Your task to perform on an android device: Set the phone to "Do not disturb". Image 0: 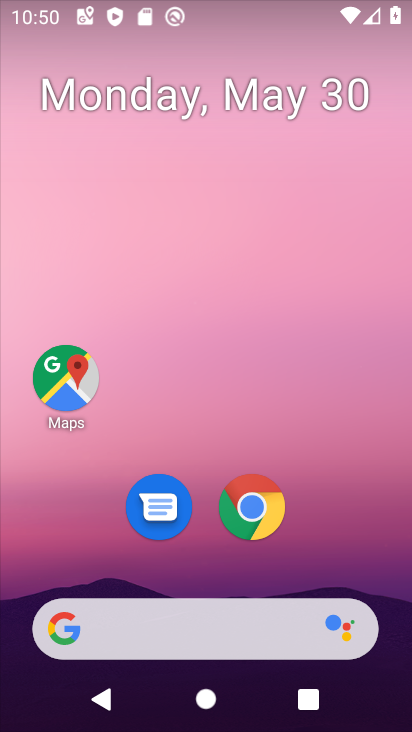
Step 0: drag from (265, 5) to (302, 460)
Your task to perform on an android device: Set the phone to "Do not disturb". Image 1: 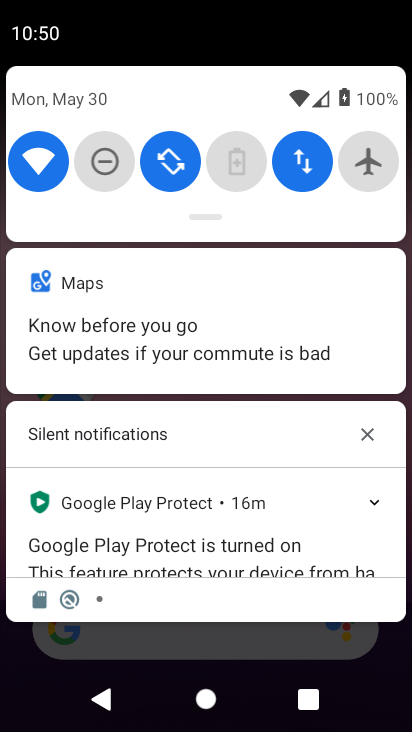
Step 1: click (113, 173)
Your task to perform on an android device: Set the phone to "Do not disturb". Image 2: 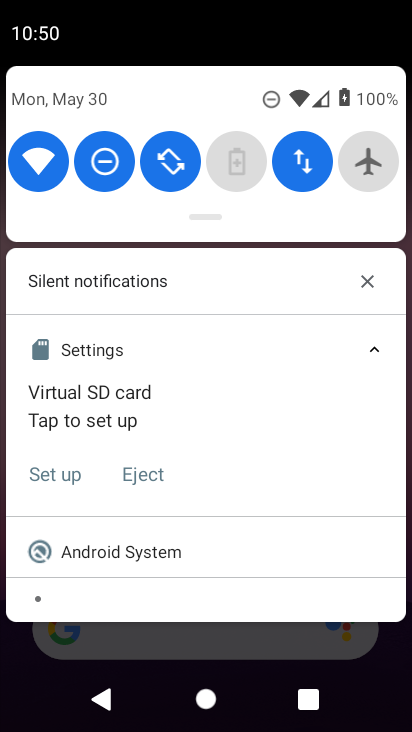
Step 2: task complete